Your task to perform on an android device: Search for sushi restaurants on Maps Image 0: 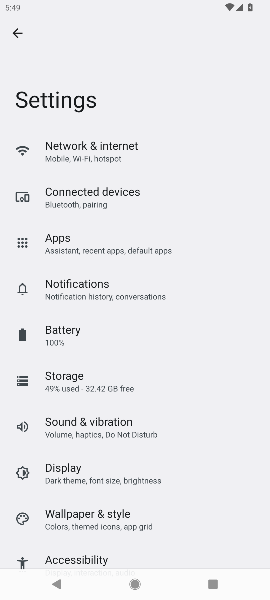
Step 0: press home button
Your task to perform on an android device: Search for sushi restaurants on Maps Image 1: 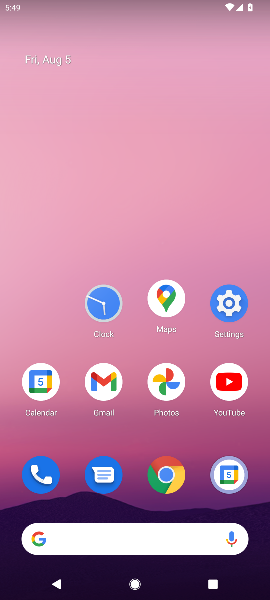
Step 1: click (162, 304)
Your task to perform on an android device: Search for sushi restaurants on Maps Image 2: 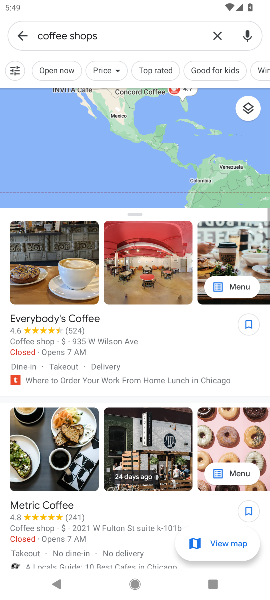
Step 2: click (216, 32)
Your task to perform on an android device: Search for sushi restaurants on Maps Image 3: 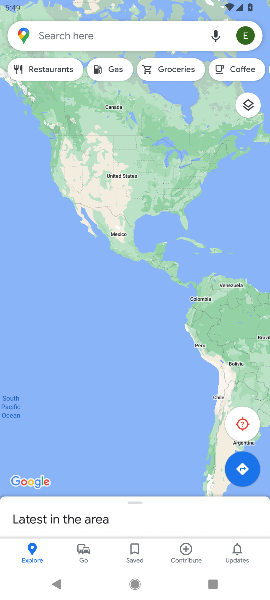
Step 3: click (98, 41)
Your task to perform on an android device: Search for sushi restaurants on Maps Image 4: 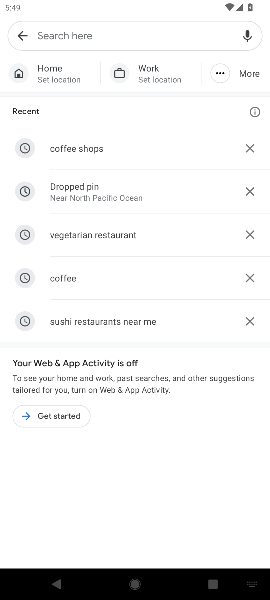
Step 4: type "sushi restaurants"
Your task to perform on an android device: Search for sushi restaurants on Maps Image 5: 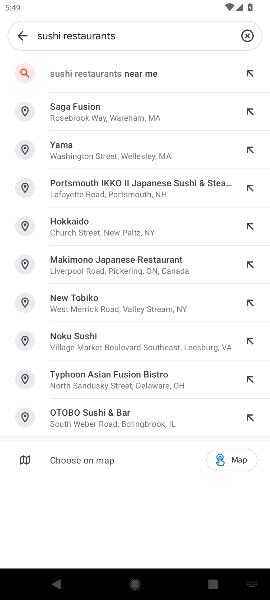
Step 5: click (112, 74)
Your task to perform on an android device: Search for sushi restaurants on Maps Image 6: 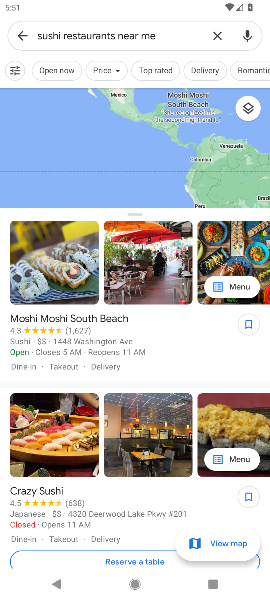
Step 6: task complete